Your task to perform on an android device: Open Amazon Image 0: 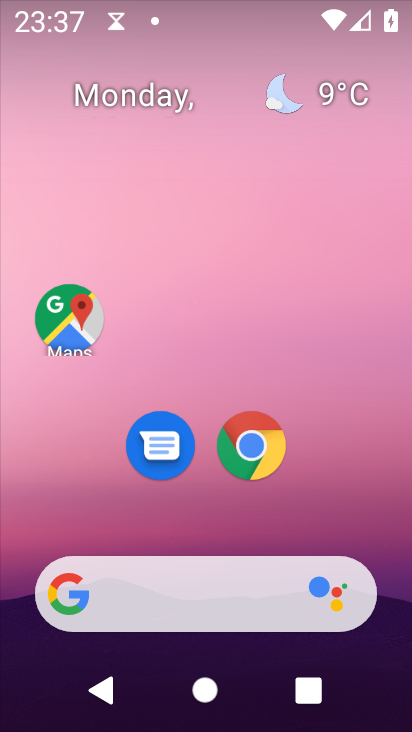
Step 0: drag from (306, 555) to (277, 73)
Your task to perform on an android device: Open Amazon Image 1: 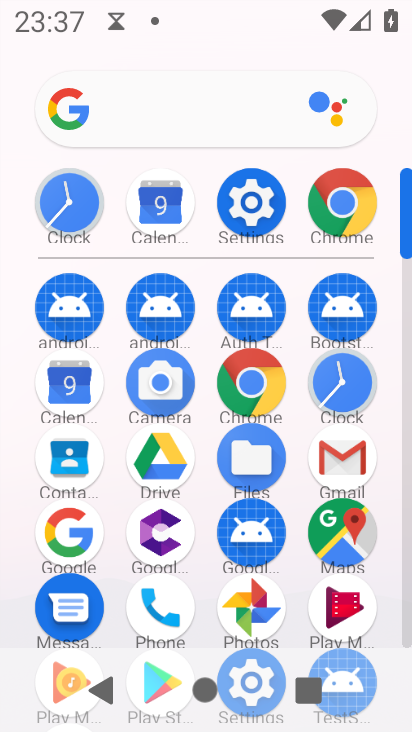
Step 1: click (244, 409)
Your task to perform on an android device: Open Amazon Image 2: 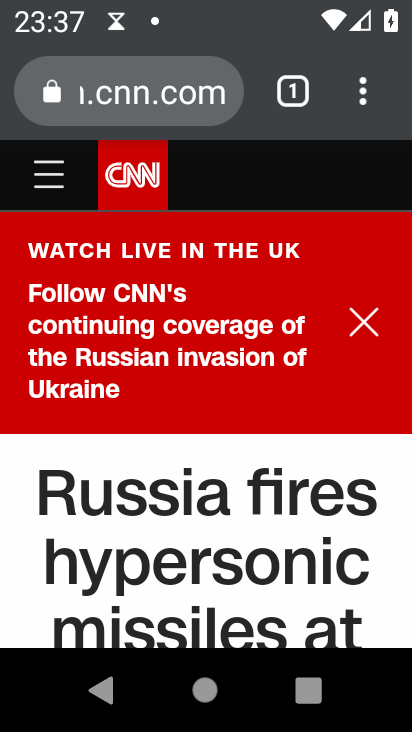
Step 2: drag from (366, 94) to (207, 182)
Your task to perform on an android device: Open Amazon Image 3: 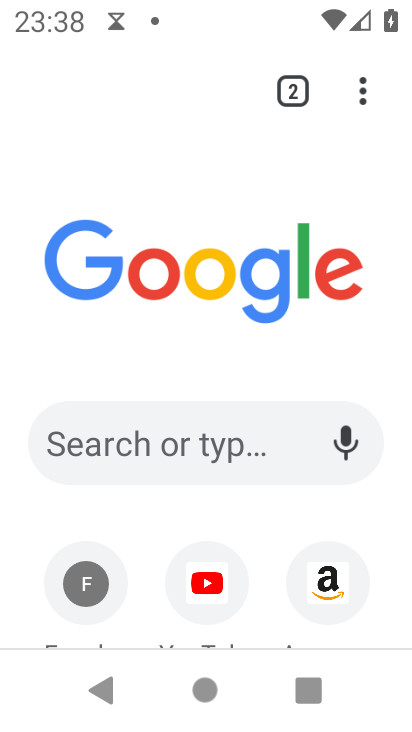
Step 3: click (331, 590)
Your task to perform on an android device: Open Amazon Image 4: 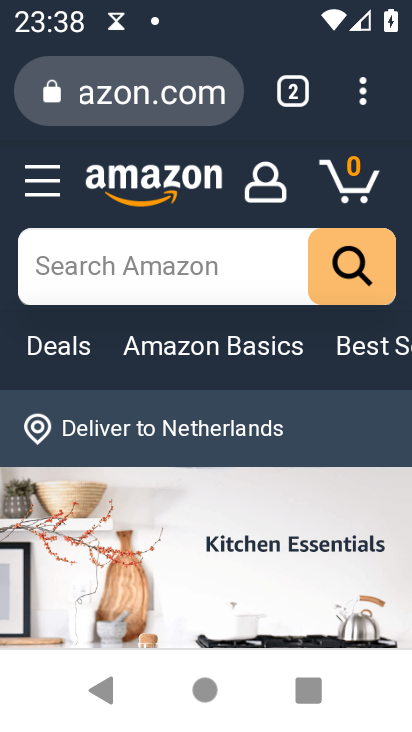
Step 4: task complete